Your task to perform on an android device: Is it going to rain today? Image 0: 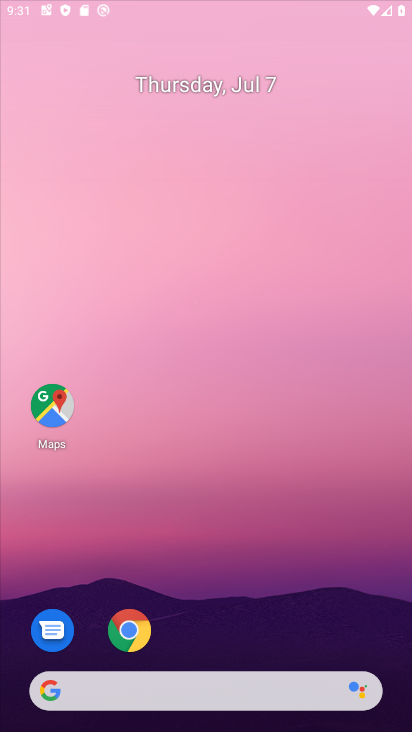
Step 0: click (132, 632)
Your task to perform on an android device: Is it going to rain today? Image 1: 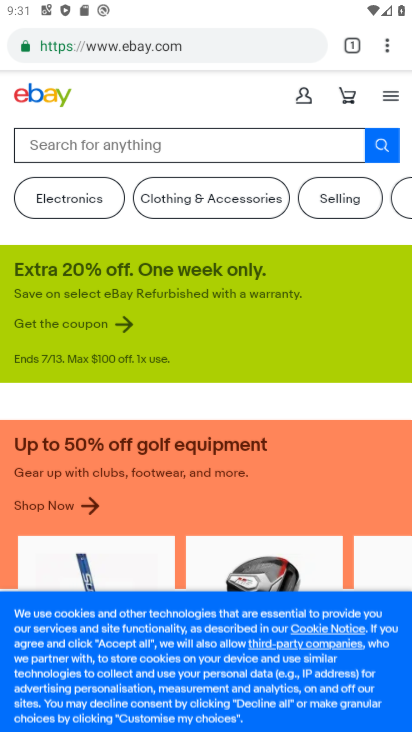
Step 1: press home button
Your task to perform on an android device: Is it going to rain today? Image 2: 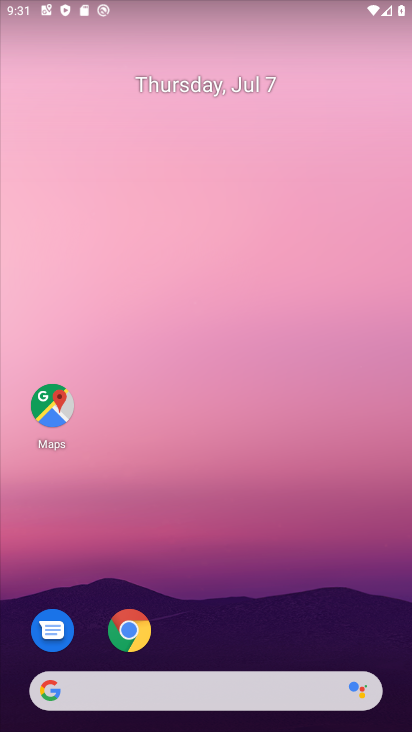
Step 2: drag from (165, 665) to (188, 304)
Your task to perform on an android device: Is it going to rain today? Image 3: 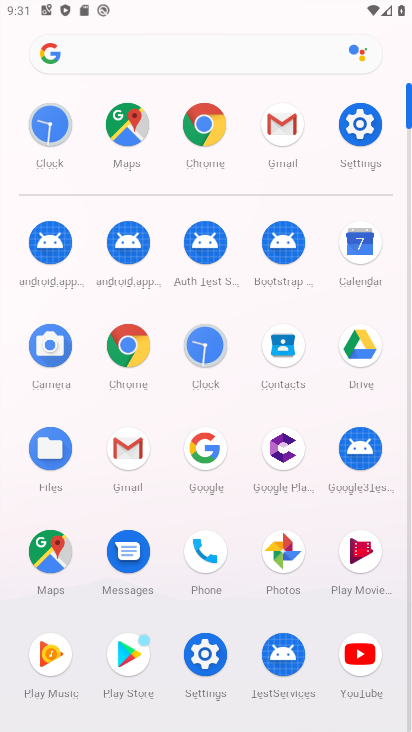
Step 3: click (217, 452)
Your task to perform on an android device: Is it going to rain today? Image 4: 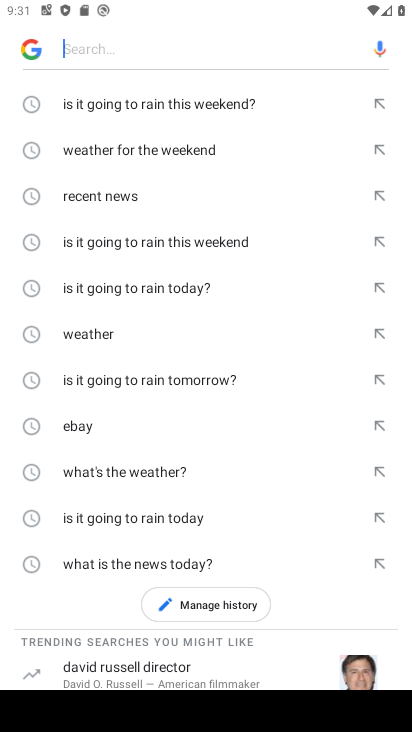
Step 4: click (90, 285)
Your task to perform on an android device: Is it going to rain today? Image 5: 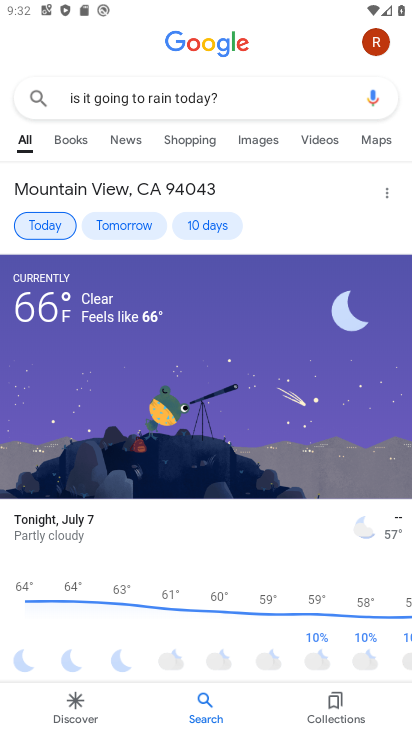
Step 5: task complete